Your task to perform on an android device: Go to Reddit.com Image 0: 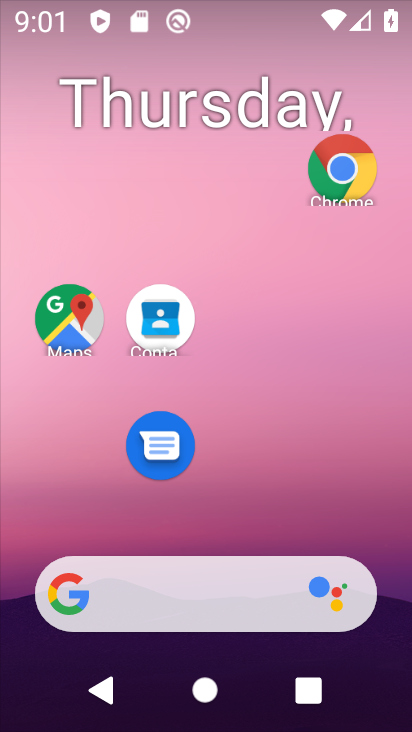
Step 0: drag from (252, 647) to (281, 224)
Your task to perform on an android device: Go to Reddit.com Image 1: 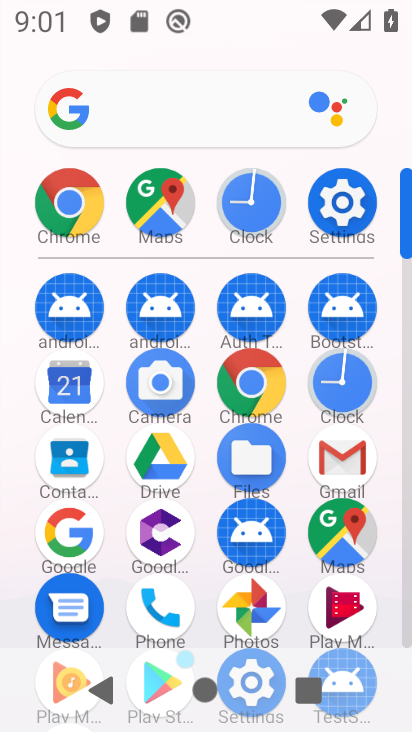
Step 1: click (76, 205)
Your task to perform on an android device: Go to Reddit.com Image 2: 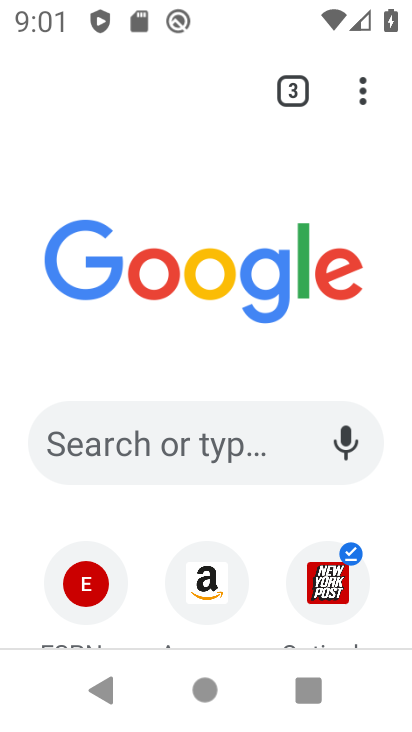
Step 2: click (159, 443)
Your task to perform on an android device: Go to Reddit.com Image 3: 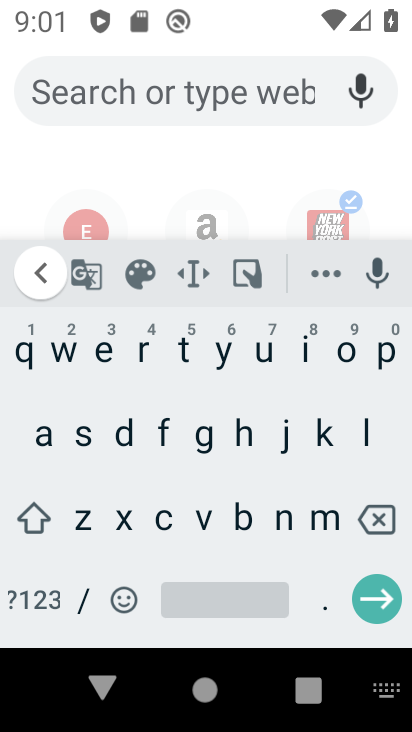
Step 3: click (137, 355)
Your task to perform on an android device: Go to Reddit.com Image 4: 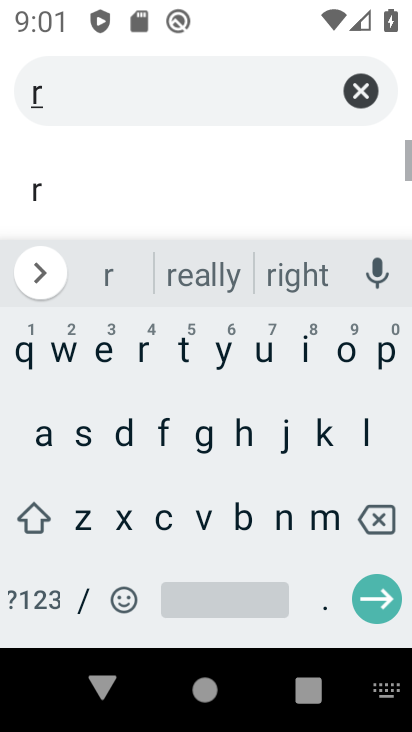
Step 4: click (106, 361)
Your task to perform on an android device: Go to Reddit.com Image 5: 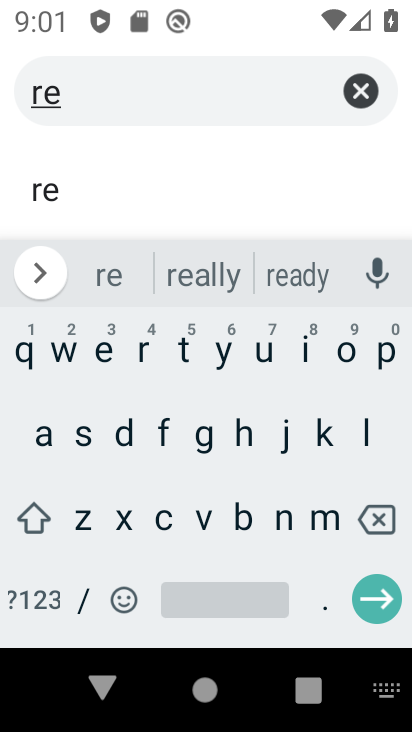
Step 5: click (128, 430)
Your task to perform on an android device: Go to Reddit.com Image 6: 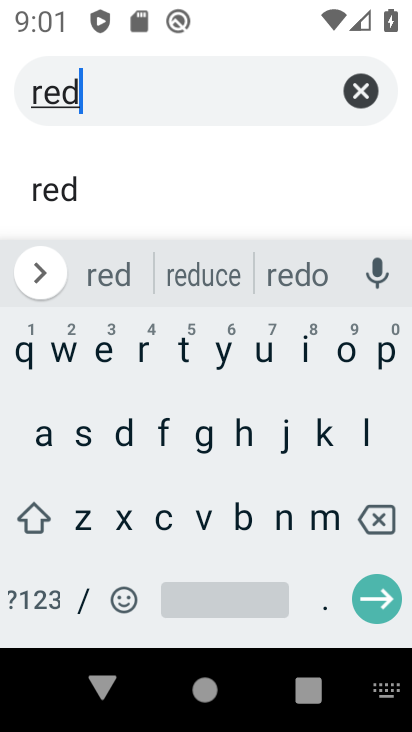
Step 6: click (116, 439)
Your task to perform on an android device: Go to Reddit.com Image 7: 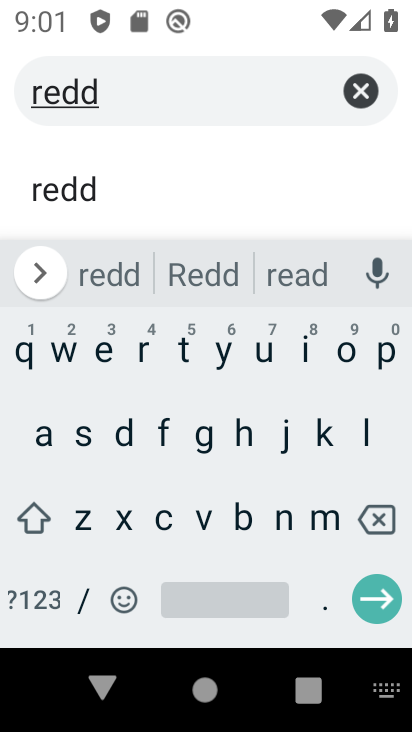
Step 7: click (301, 357)
Your task to perform on an android device: Go to Reddit.com Image 8: 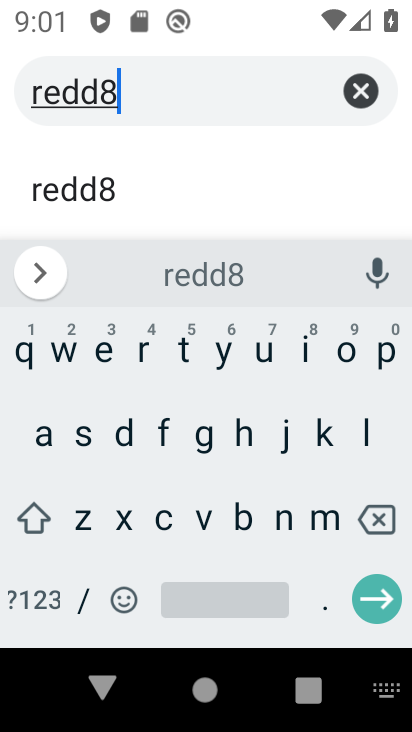
Step 8: click (381, 519)
Your task to perform on an android device: Go to Reddit.com Image 9: 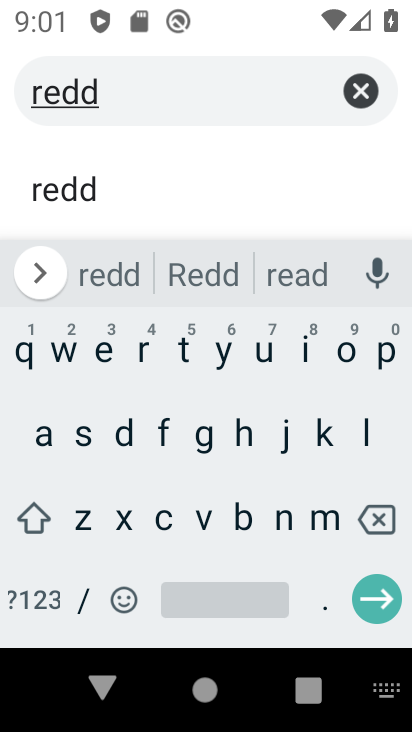
Step 9: click (301, 361)
Your task to perform on an android device: Go to Reddit.com Image 10: 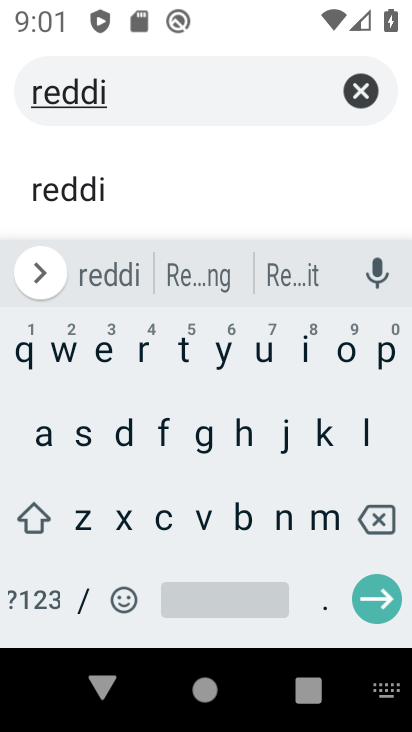
Step 10: click (189, 359)
Your task to perform on an android device: Go to Reddit.com Image 11: 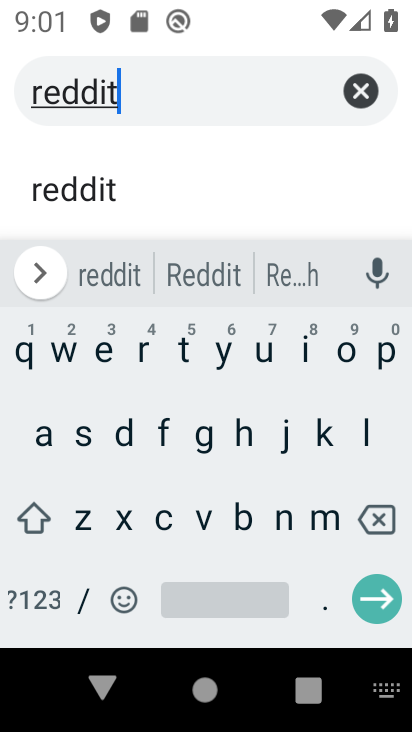
Step 11: click (362, 601)
Your task to perform on an android device: Go to Reddit.com Image 12: 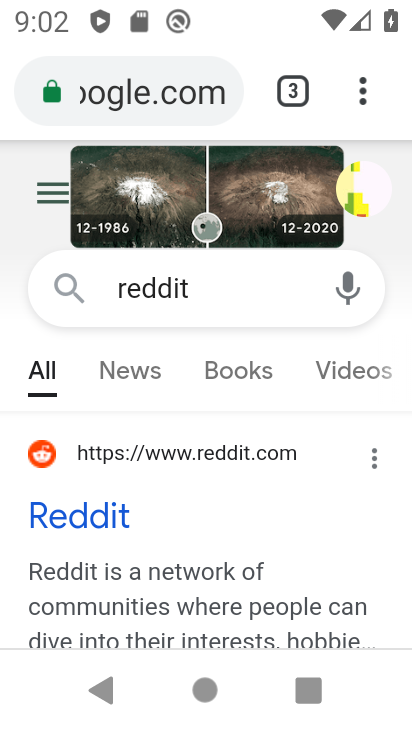
Step 12: click (111, 519)
Your task to perform on an android device: Go to Reddit.com Image 13: 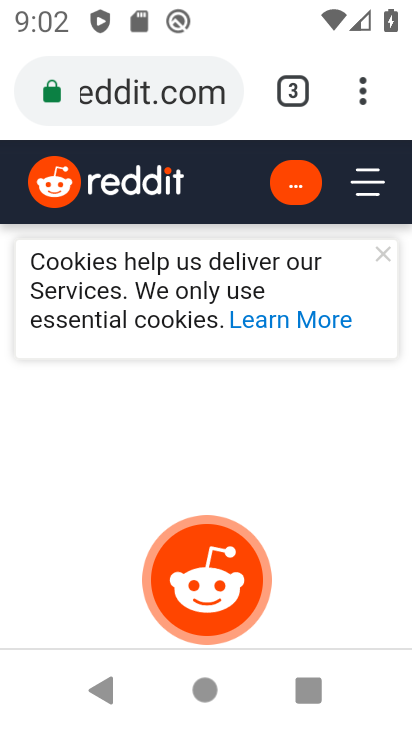
Step 13: task complete